Your task to perform on an android device: change timer sound Image 0: 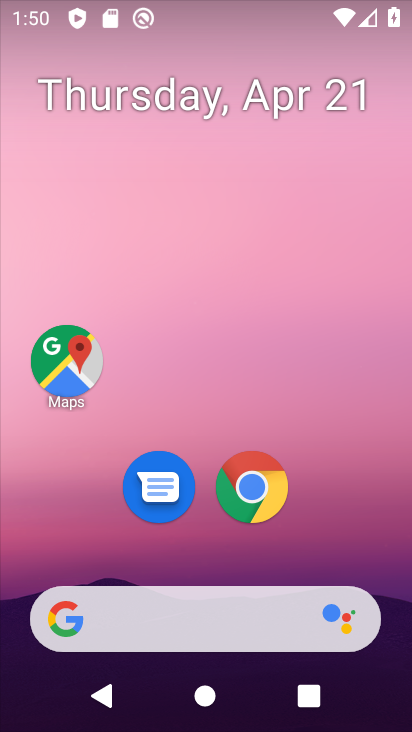
Step 0: drag from (210, 556) to (180, 20)
Your task to perform on an android device: change timer sound Image 1: 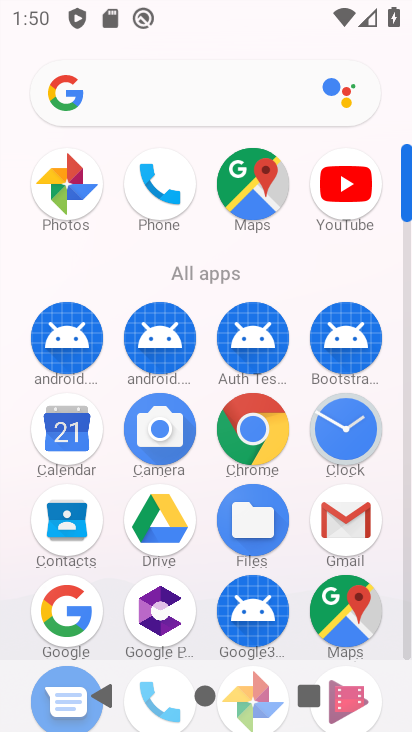
Step 1: click (345, 431)
Your task to perform on an android device: change timer sound Image 2: 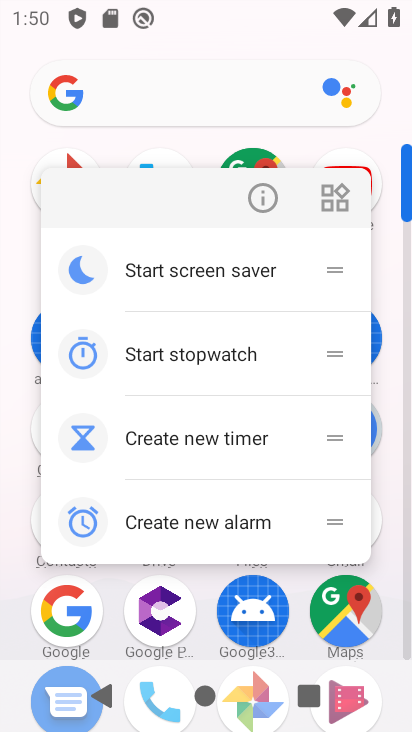
Step 2: click (254, 206)
Your task to perform on an android device: change timer sound Image 3: 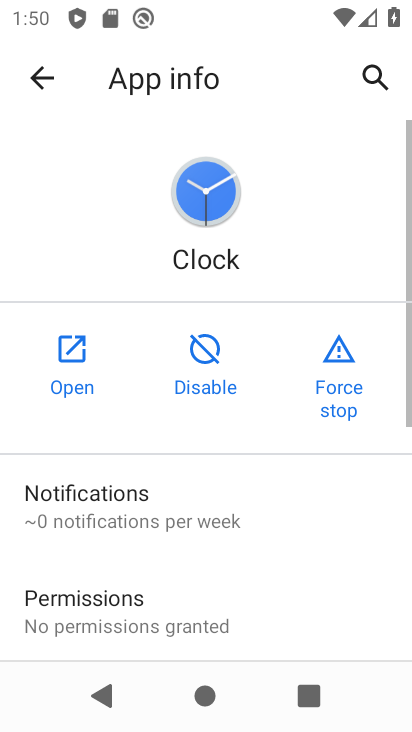
Step 3: click (66, 368)
Your task to perform on an android device: change timer sound Image 4: 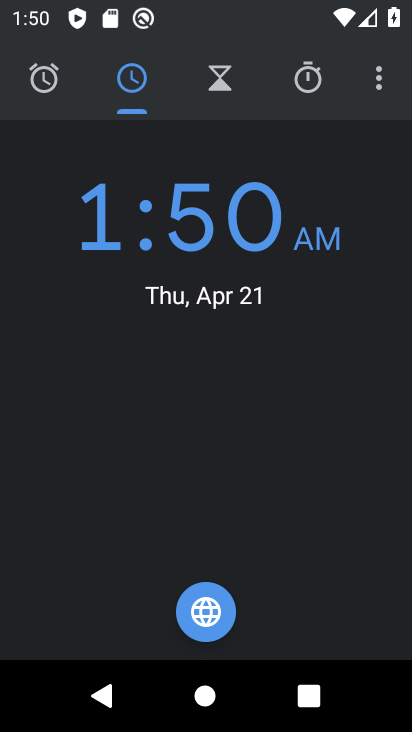
Step 4: click (197, 88)
Your task to perform on an android device: change timer sound Image 5: 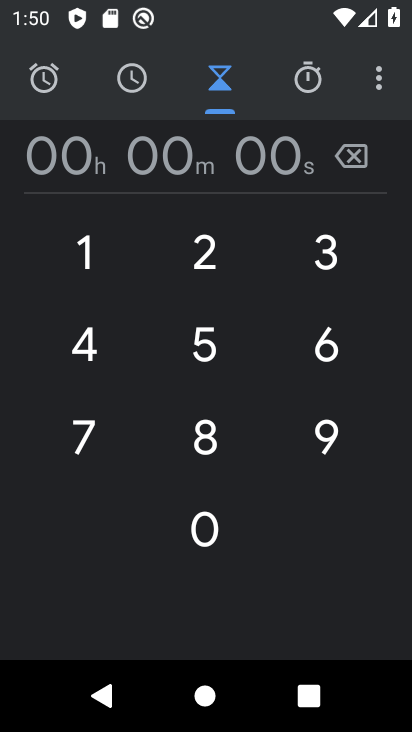
Step 5: click (219, 244)
Your task to perform on an android device: change timer sound Image 6: 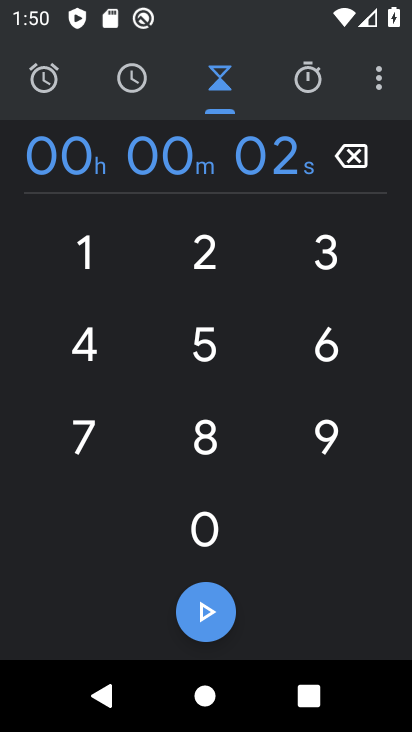
Step 6: click (326, 366)
Your task to perform on an android device: change timer sound Image 7: 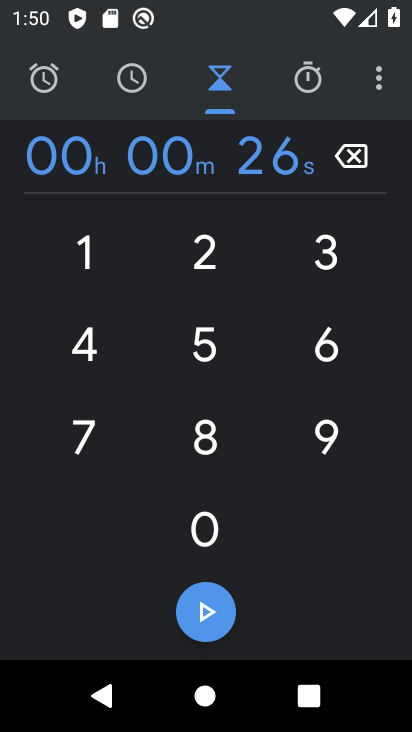
Step 7: click (203, 628)
Your task to perform on an android device: change timer sound Image 8: 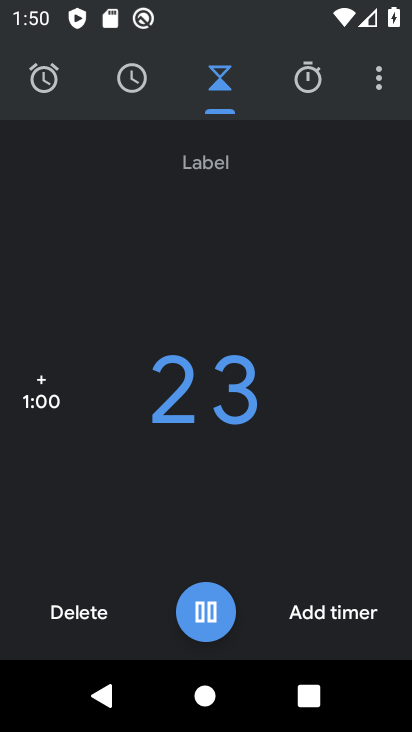
Step 8: task complete